Your task to perform on an android device: Show the shopping cart on costco. Image 0: 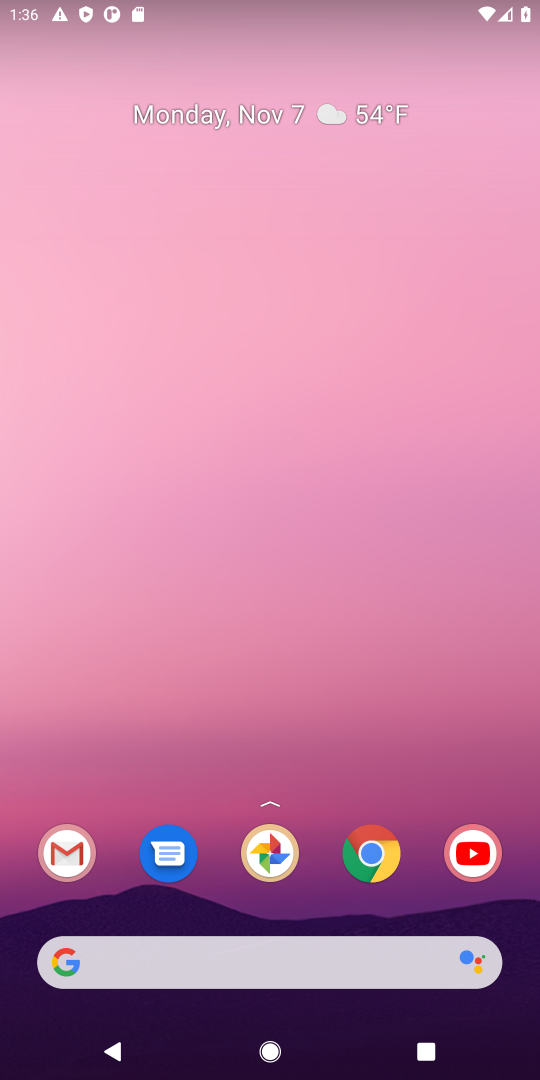
Step 0: drag from (286, 940) to (104, 506)
Your task to perform on an android device: Show the shopping cart on costco. Image 1: 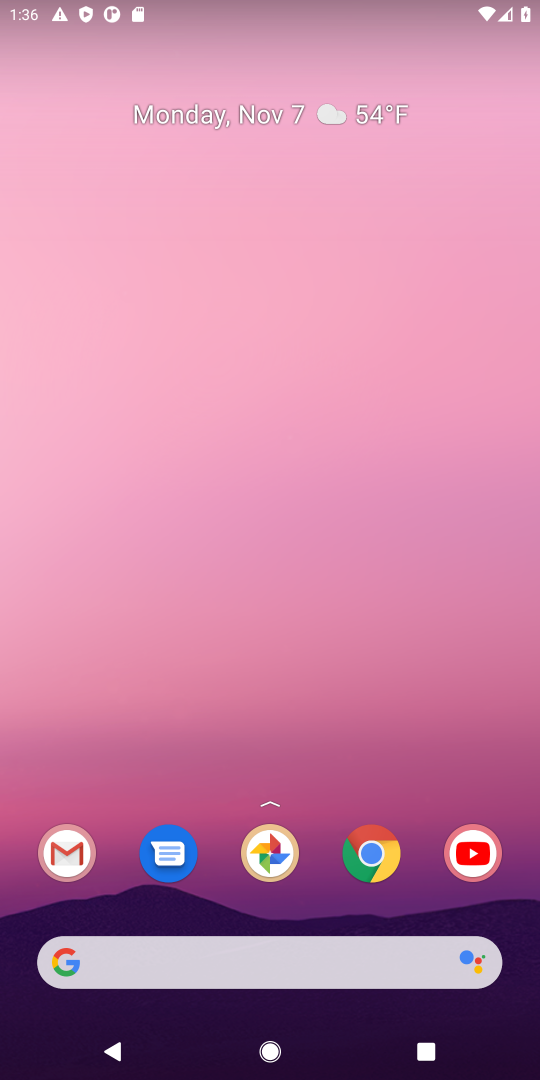
Step 1: drag from (287, 830) to (101, 444)
Your task to perform on an android device: Show the shopping cart on costco. Image 2: 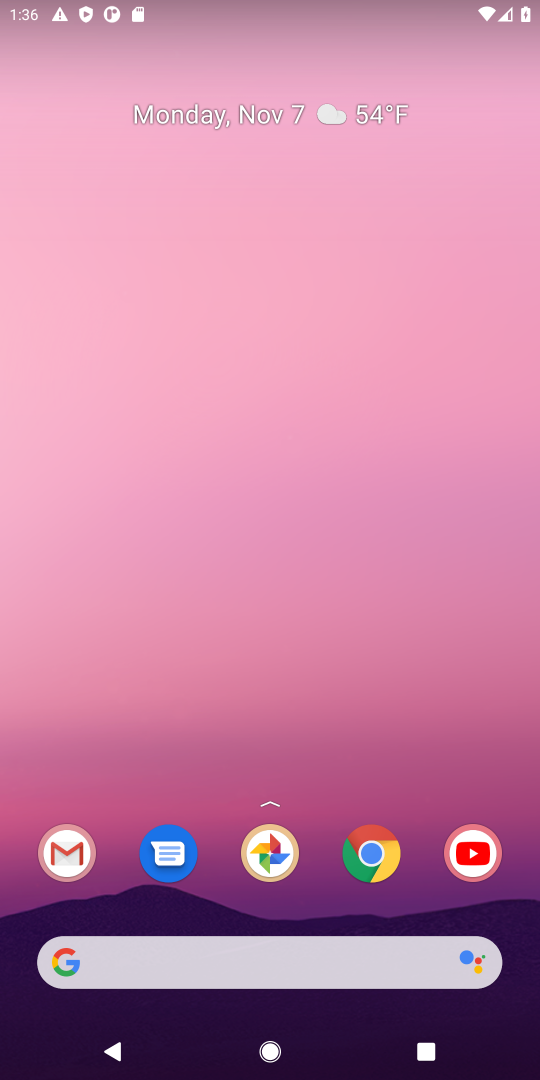
Step 2: drag from (308, 819) to (190, 482)
Your task to perform on an android device: Show the shopping cart on costco. Image 3: 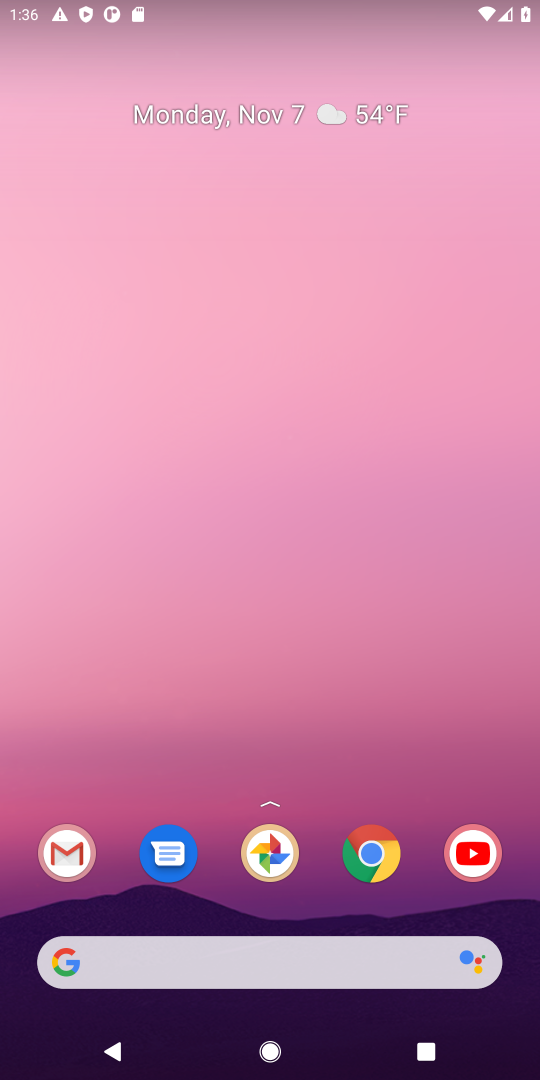
Step 3: drag from (299, 806) to (196, 527)
Your task to perform on an android device: Show the shopping cart on costco. Image 4: 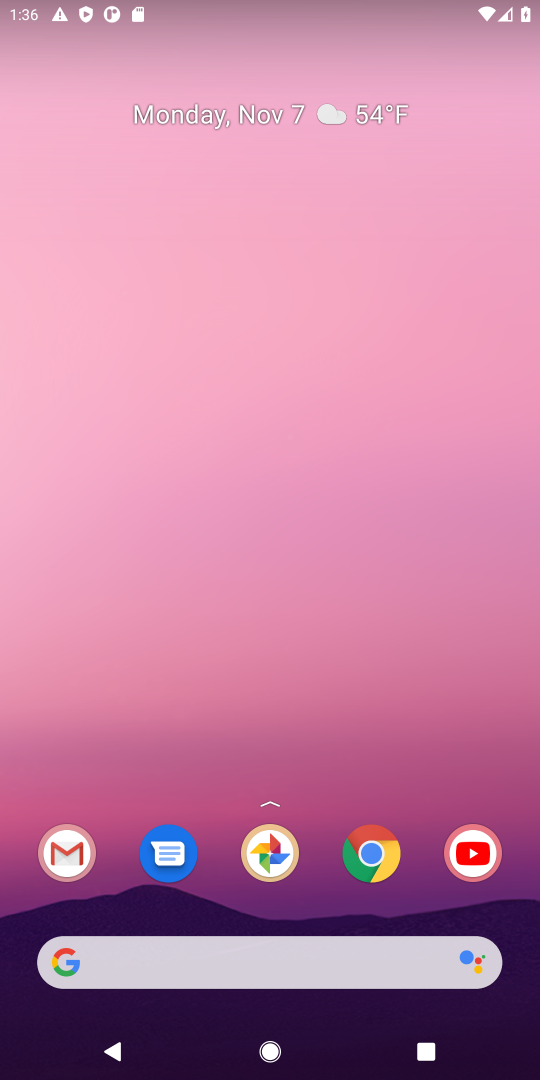
Step 4: drag from (304, 864) to (213, 555)
Your task to perform on an android device: Show the shopping cart on costco. Image 5: 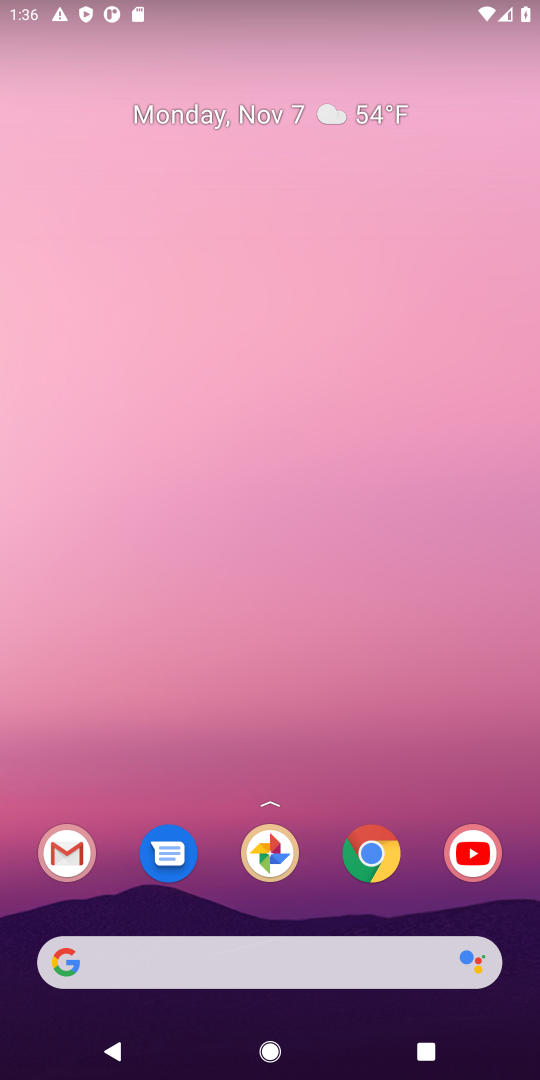
Step 5: drag from (332, 877) to (200, 379)
Your task to perform on an android device: Show the shopping cart on costco. Image 6: 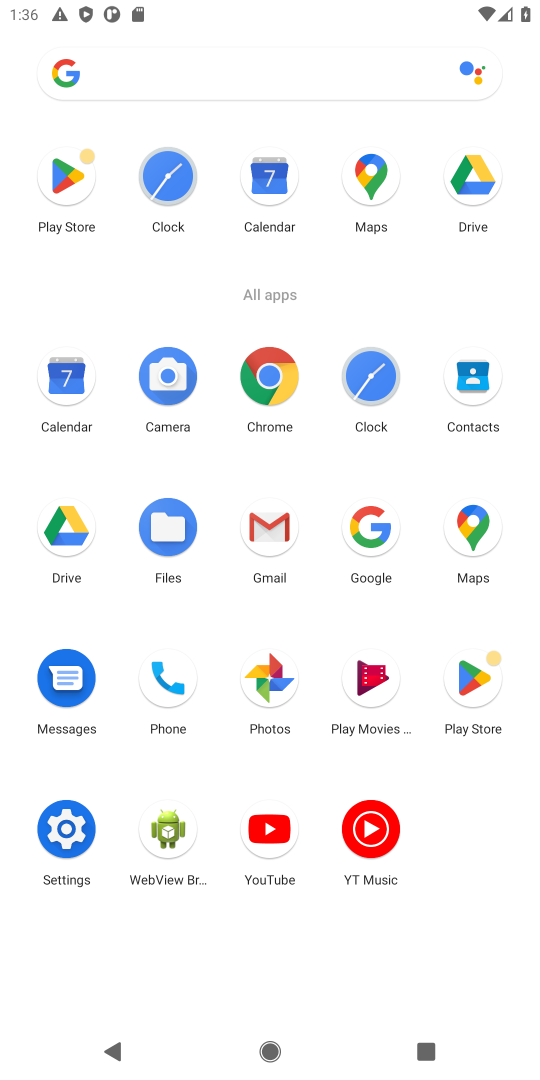
Step 6: click (280, 384)
Your task to perform on an android device: Show the shopping cart on costco. Image 7: 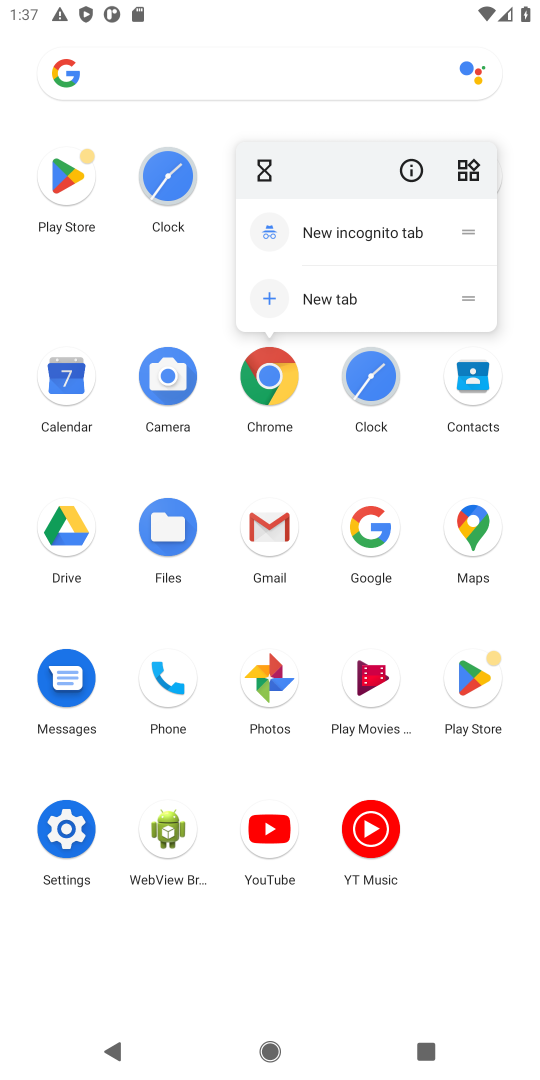
Step 7: click (270, 371)
Your task to perform on an android device: Show the shopping cart on costco. Image 8: 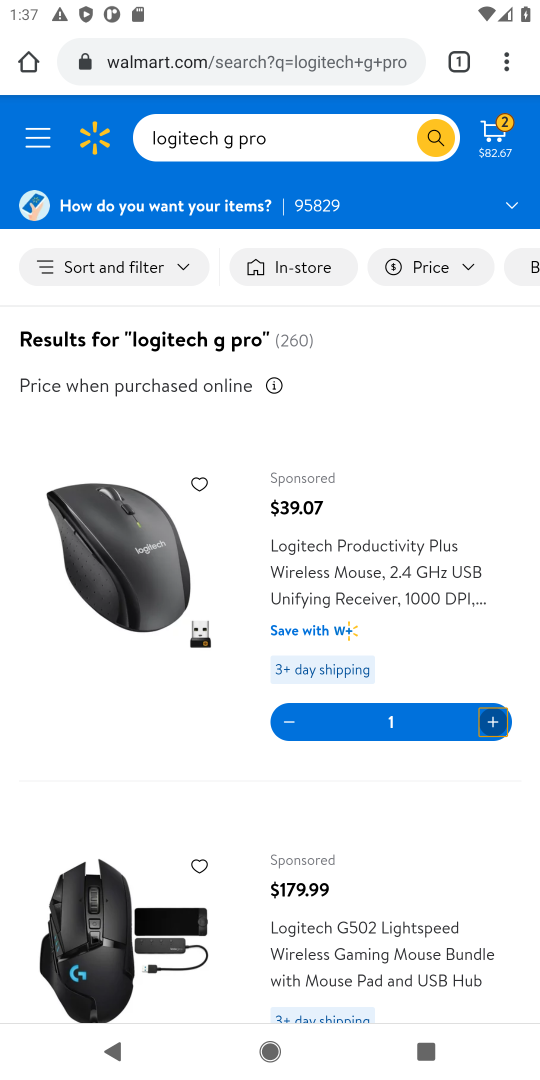
Step 8: click (263, 76)
Your task to perform on an android device: Show the shopping cart on costco. Image 9: 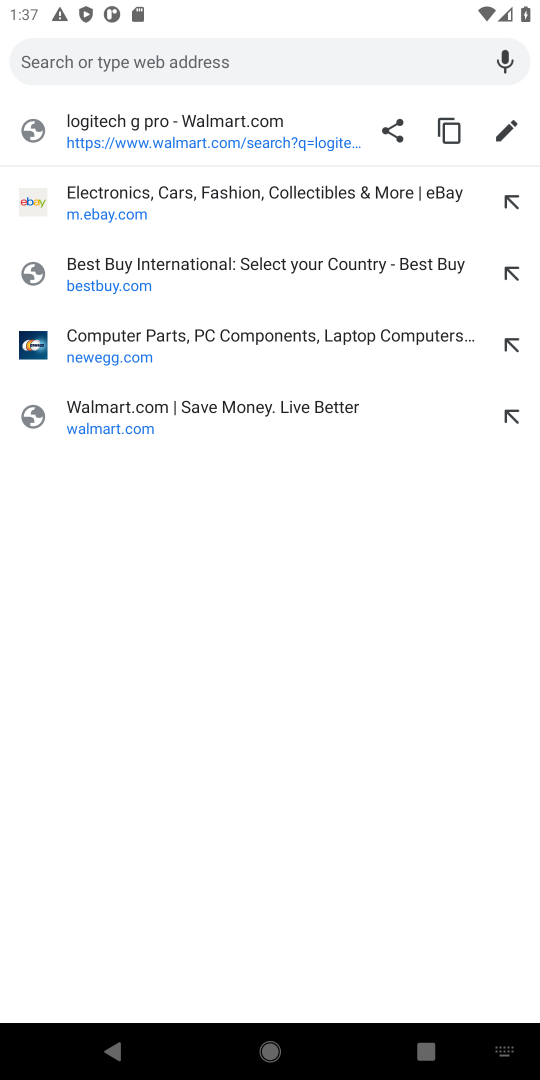
Step 9: type "costco"
Your task to perform on an android device: Show the shopping cart on costco. Image 10: 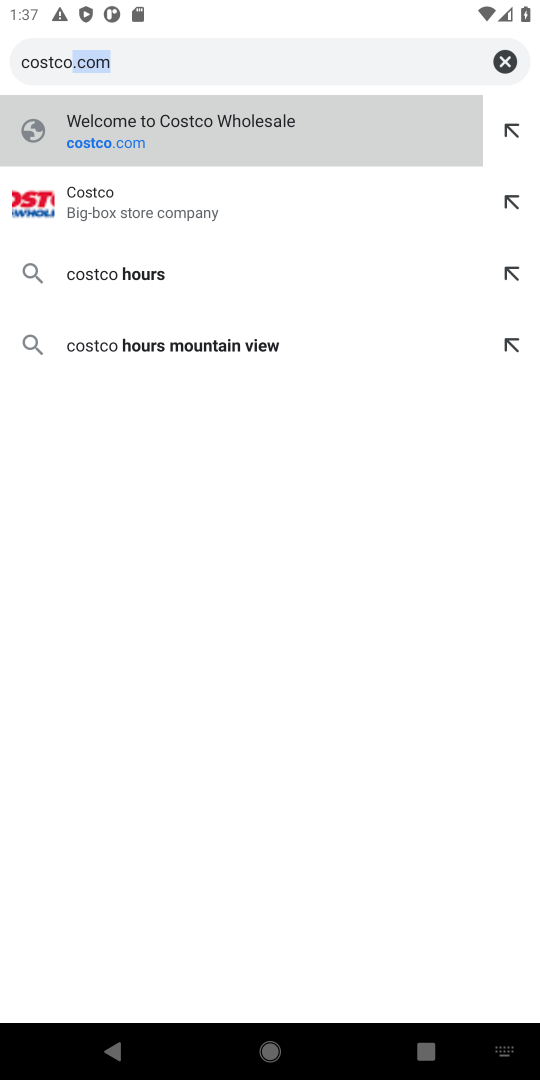
Step 10: press enter
Your task to perform on an android device: Show the shopping cart on costco. Image 11: 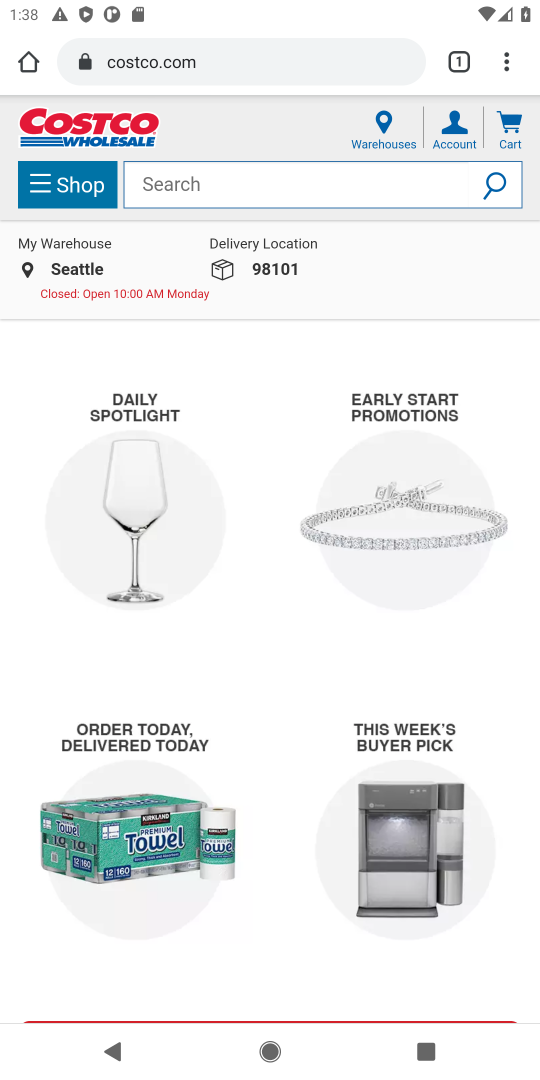
Step 11: click (193, 184)
Your task to perform on an android device: Show the shopping cart on costco. Image 12: 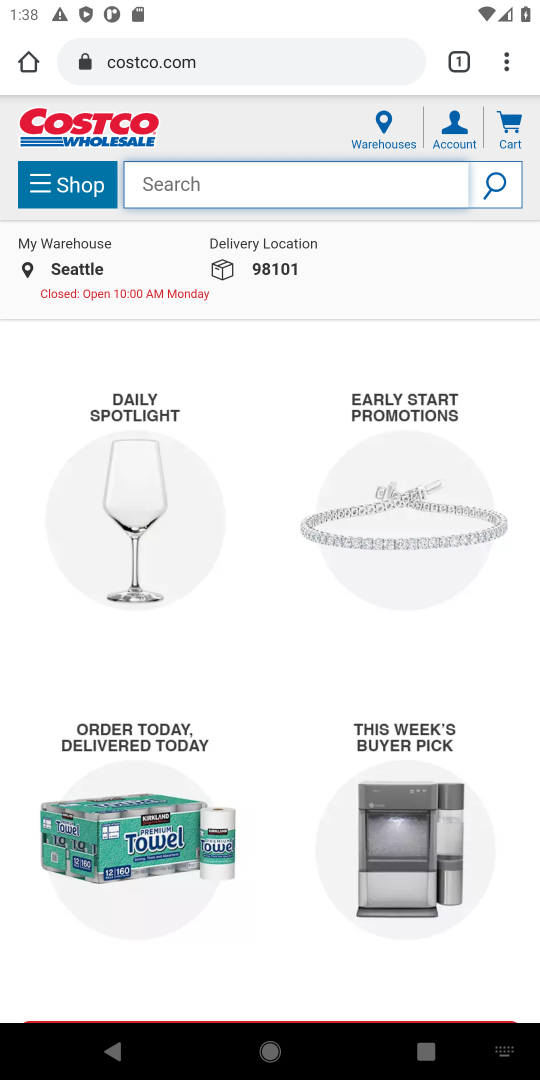
Step 12: click (497, 114)
Your task to perform on an android device: Show the shopping cart on costco. Image 13: 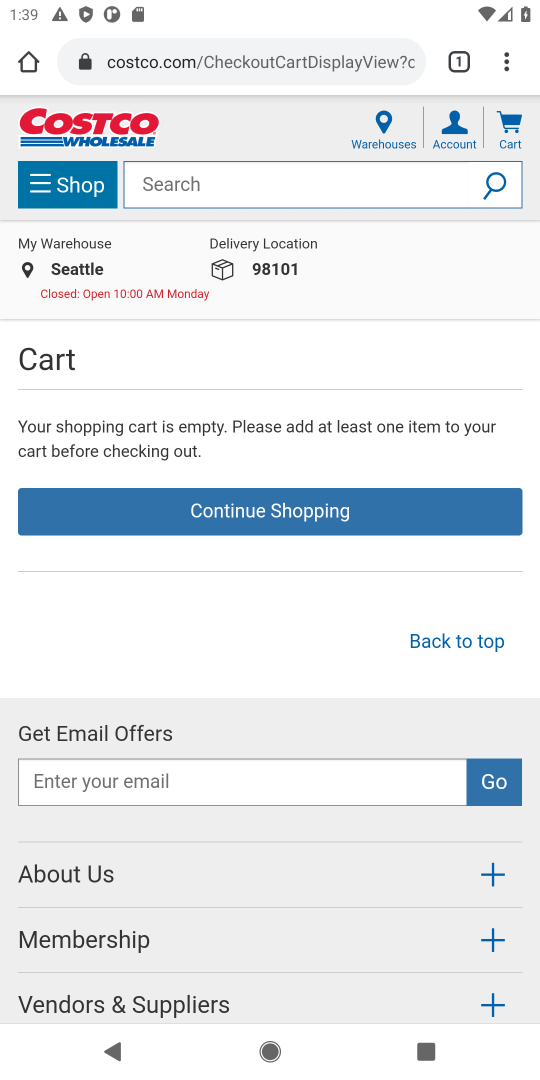
Step 13: task complete